Your task to perform on an android device: turn smart compose on in the gmail app Image 0: 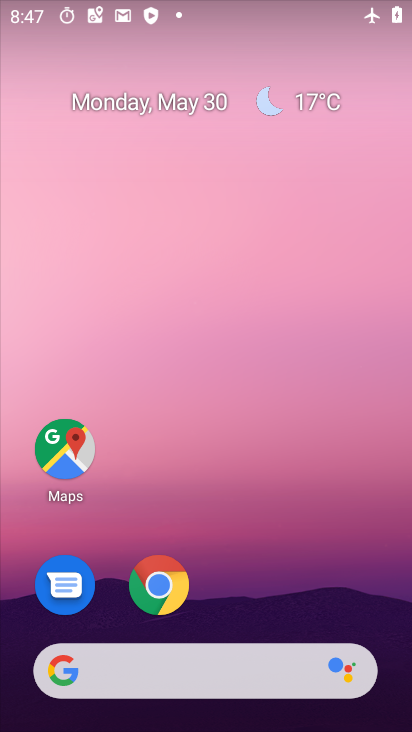
Step 0: drag from (248, 592) to (388, 85)
Your task to perform on an android device: turn smart compose on in the gmail app Image 1: 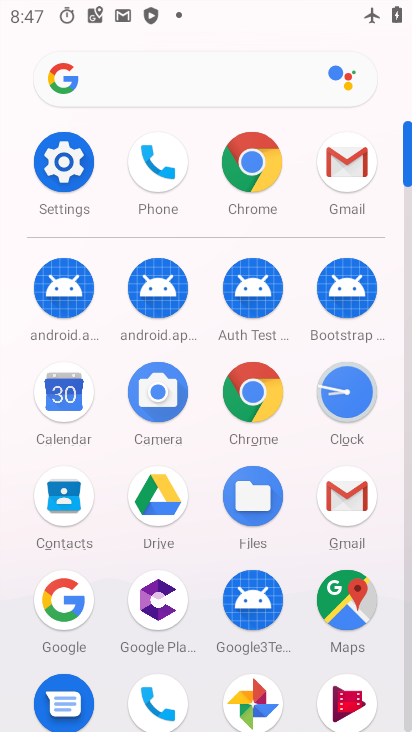
Step 1: click (341, 510)
Your task to perform on an android device: turn smart compose on in the gmail app Image 2: 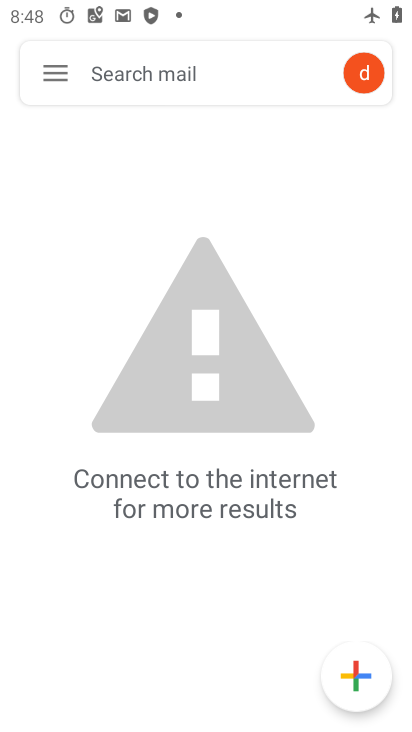
Step 2: click (78, 74)
Your task to perform on an android device: turn smart compose on in the gmail app Image 3: 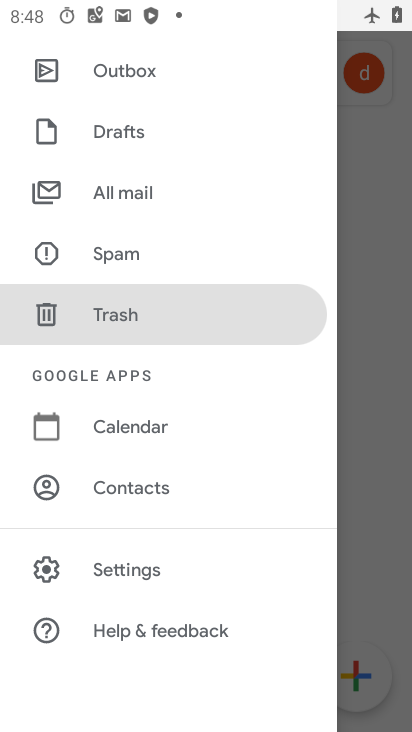
Step 3: drag from (181, 189) to (165, 649)
Your task to perform on an android device: turn smart compose on in the gmail app Image 4: 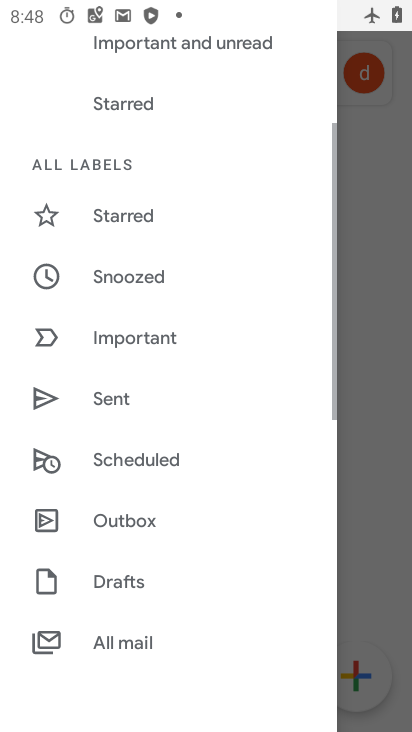
Step 4: drag from (192, 146) to (190, 626)
Your task to perform on an android device: turn smart compose on in the gmail app Image 5: 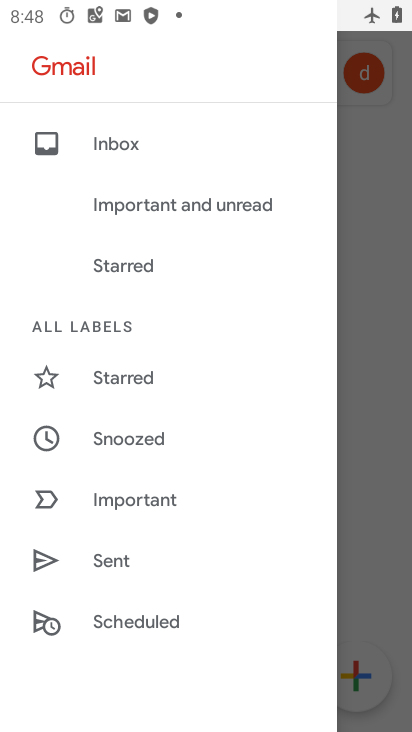
Step 5: drag from (133, 574) to (232, 25)
Your task to perform on an android device: turn smart compose on in the gmail app Image 6: 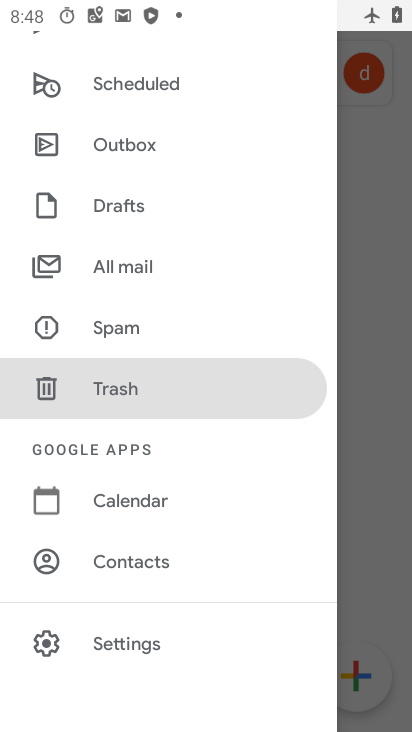
Step 6: drag from (171, 532) to (251, 57)
Your task to perform on an android device: turn smart compose on in the gmail app Image 7: 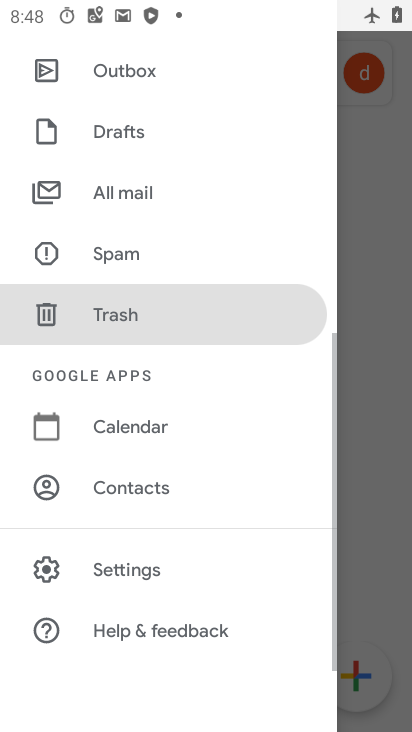
Step 7: click (177, 561)
Your task to perform on an android device: turn smart compose on in the gmail app Image 8: 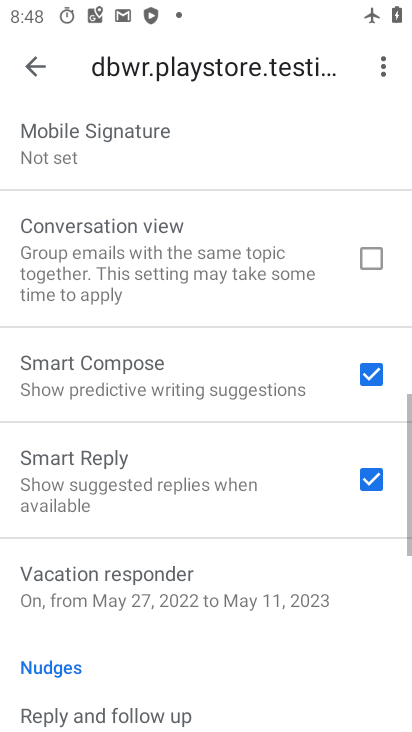
Step 8: task complete